Your task to perform on an android device: Add "usb-c to usb-b" to the cart on amazon.com, then select checkout. Image 0: 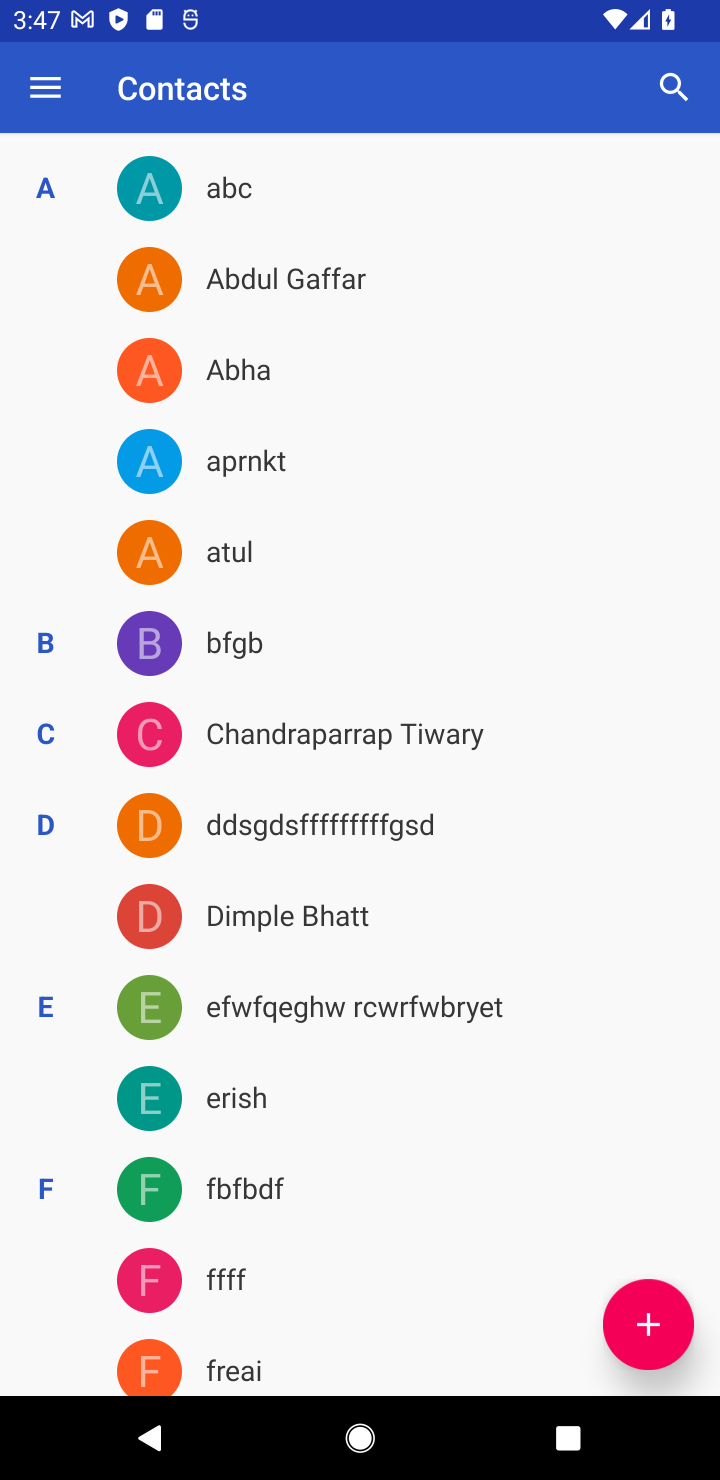
Step 0: press home button
Your task to perform on an android device: Add "usb-c to usb-b" to the cart on amazon.com, then select checkout. Image 1: 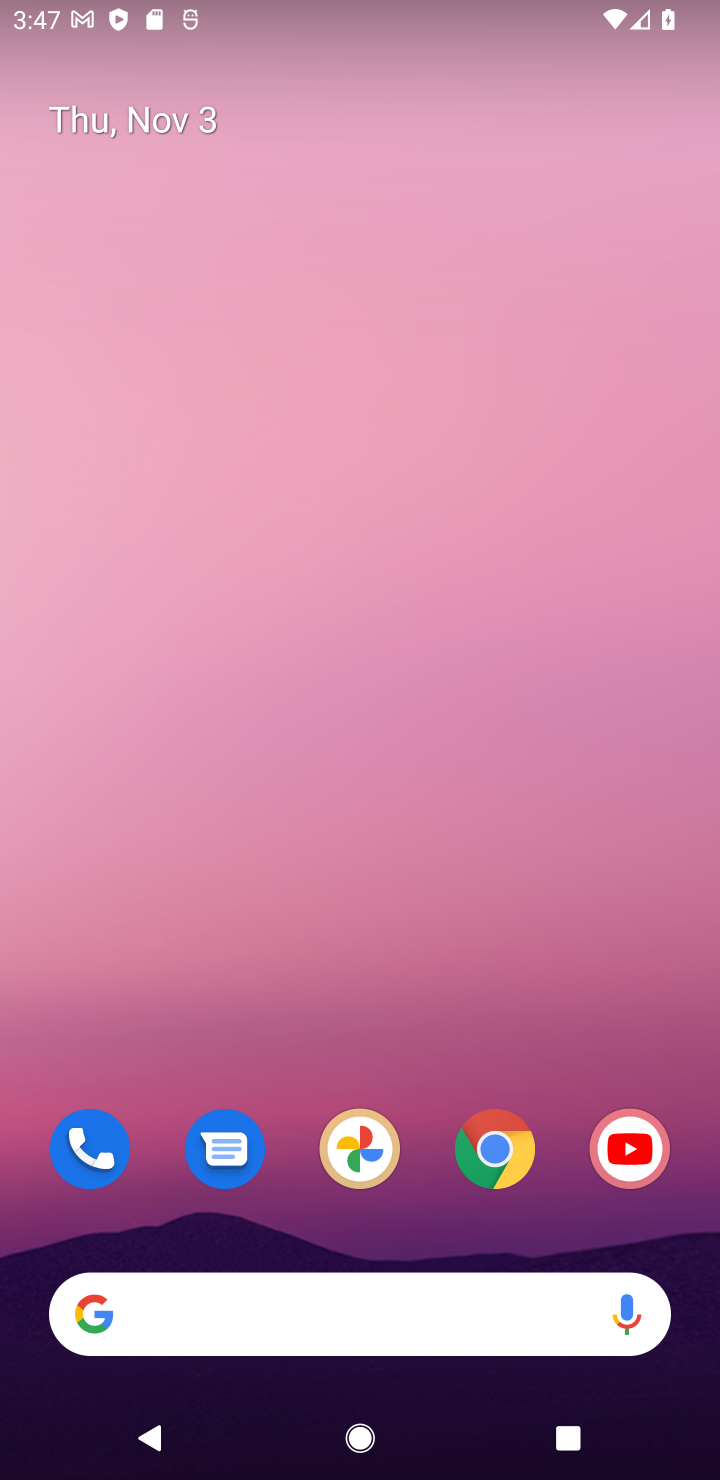
Step 1: drag from (421, 1083) to (333, 129)
Your task to perform on an android device: Add "usb-c to usb-b" to the cart on amazon.com, then select checkout. Image 2: 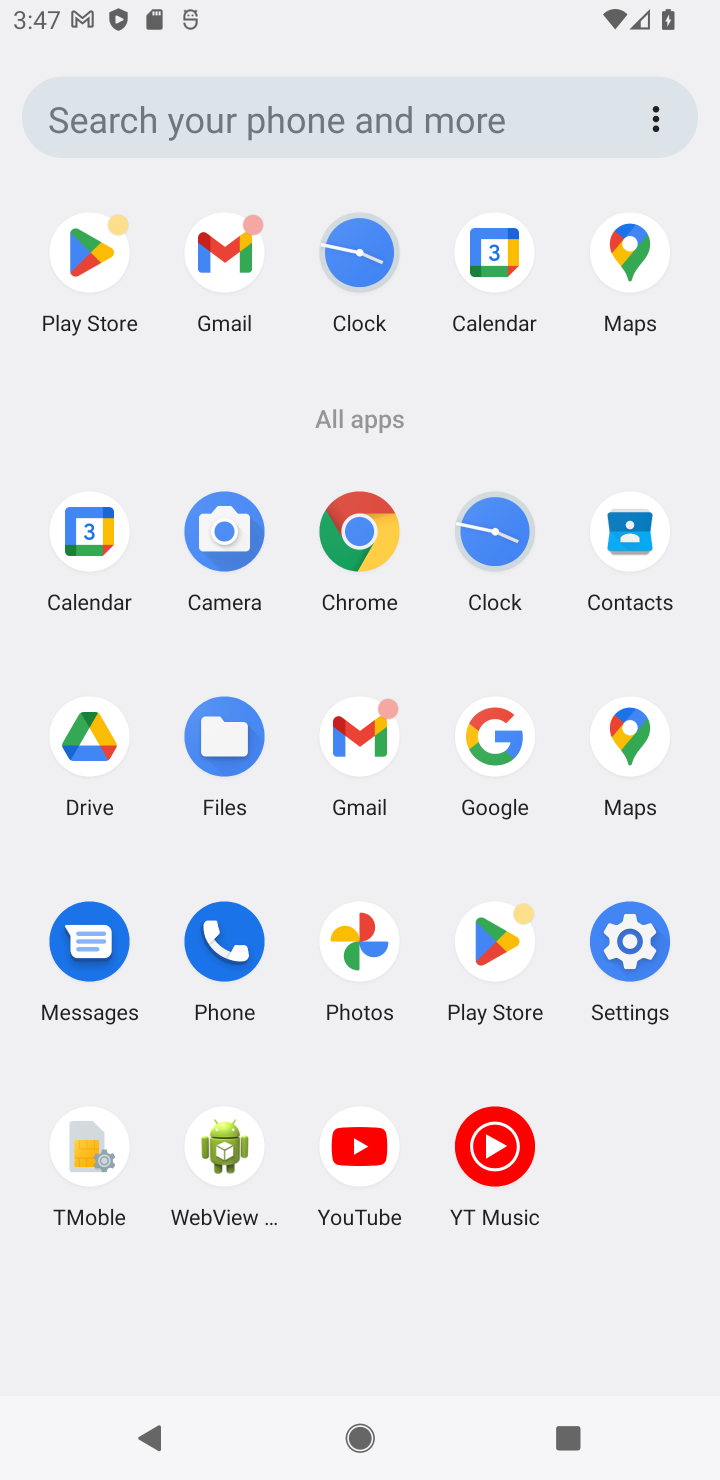
Step 2: click (369, 512)
Your task to perform on an android device: Add "usb-c to usb-b" to the cart on amazon.com, then select checkout. Image 3: 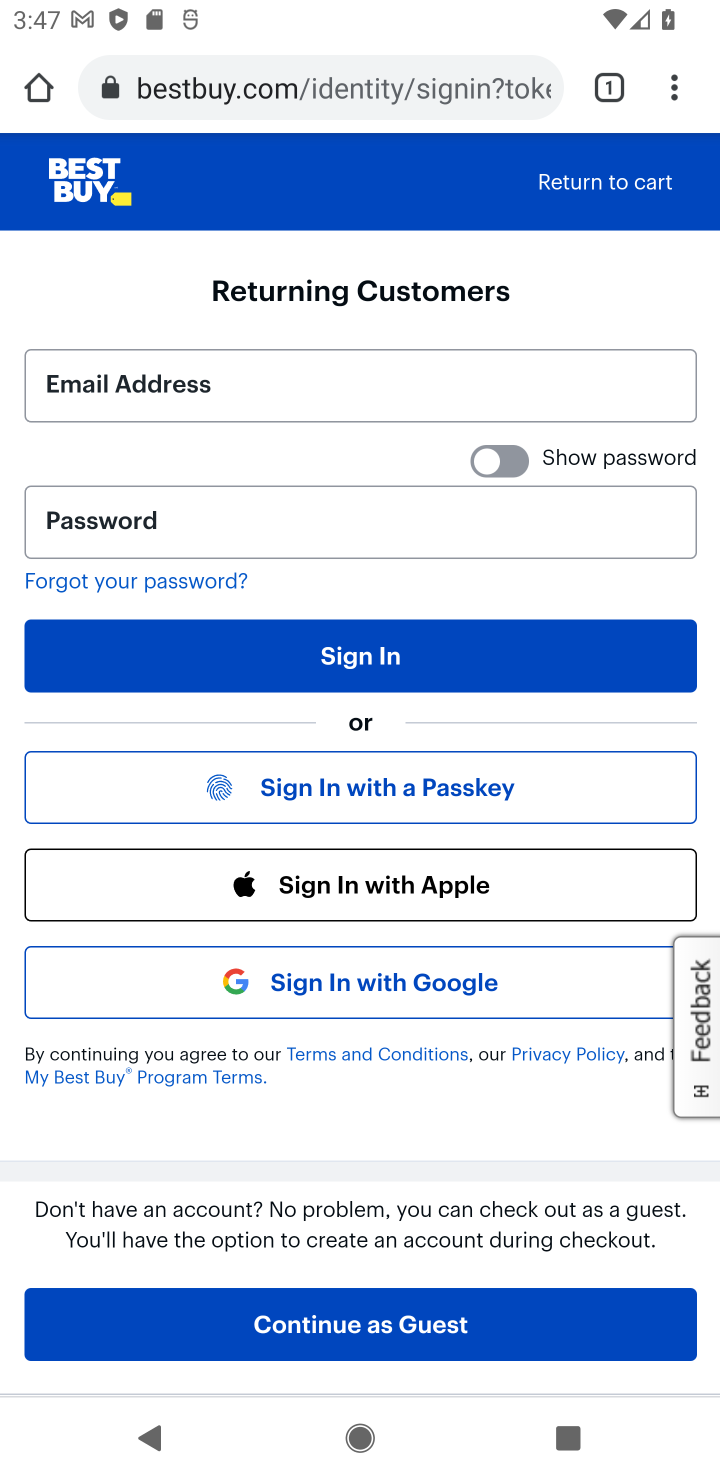
Step 3: click (277, 78)
Your task to perform on an android device: Add "usb-c to usb-b" to the cart on amazon.com, then select checkout. Image 4: 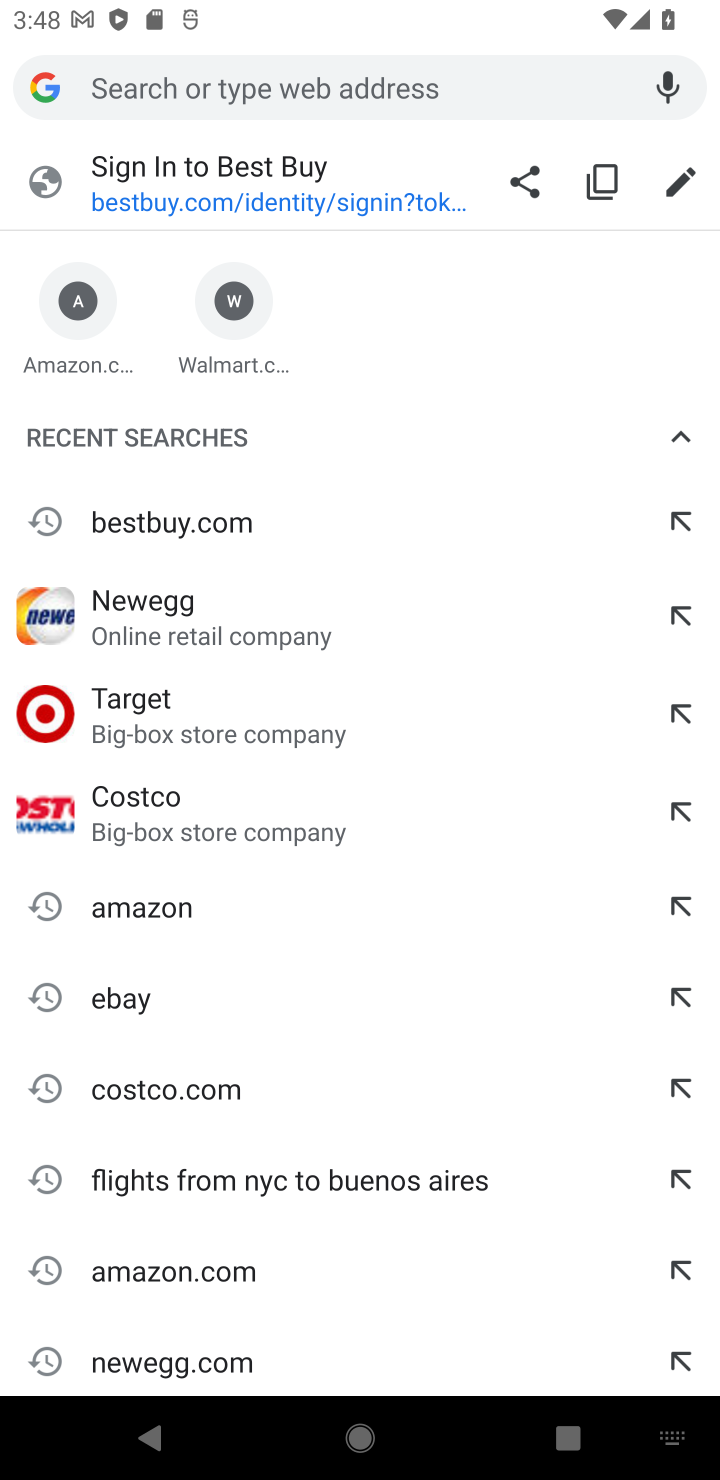
Step 4: type "amazon"
Your task to perform on an android device: Add "usb-c to usb-b" to the cart on amazon.com, then select checkout. Image 5: 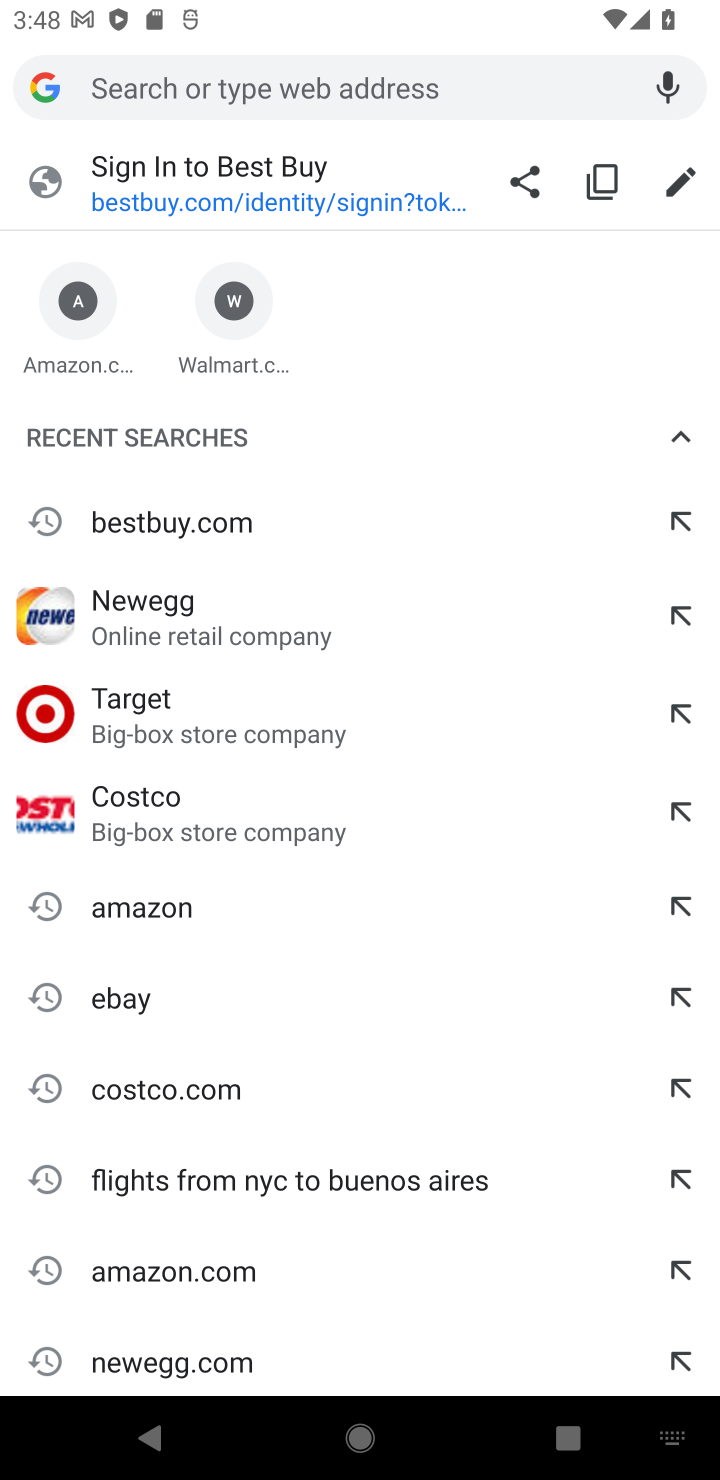
Step 5: click (229, 916)
Your task to perform on an android device: Add "usb-c to usb-b" to the cart on amazon.com, then select checkout. Image 6: 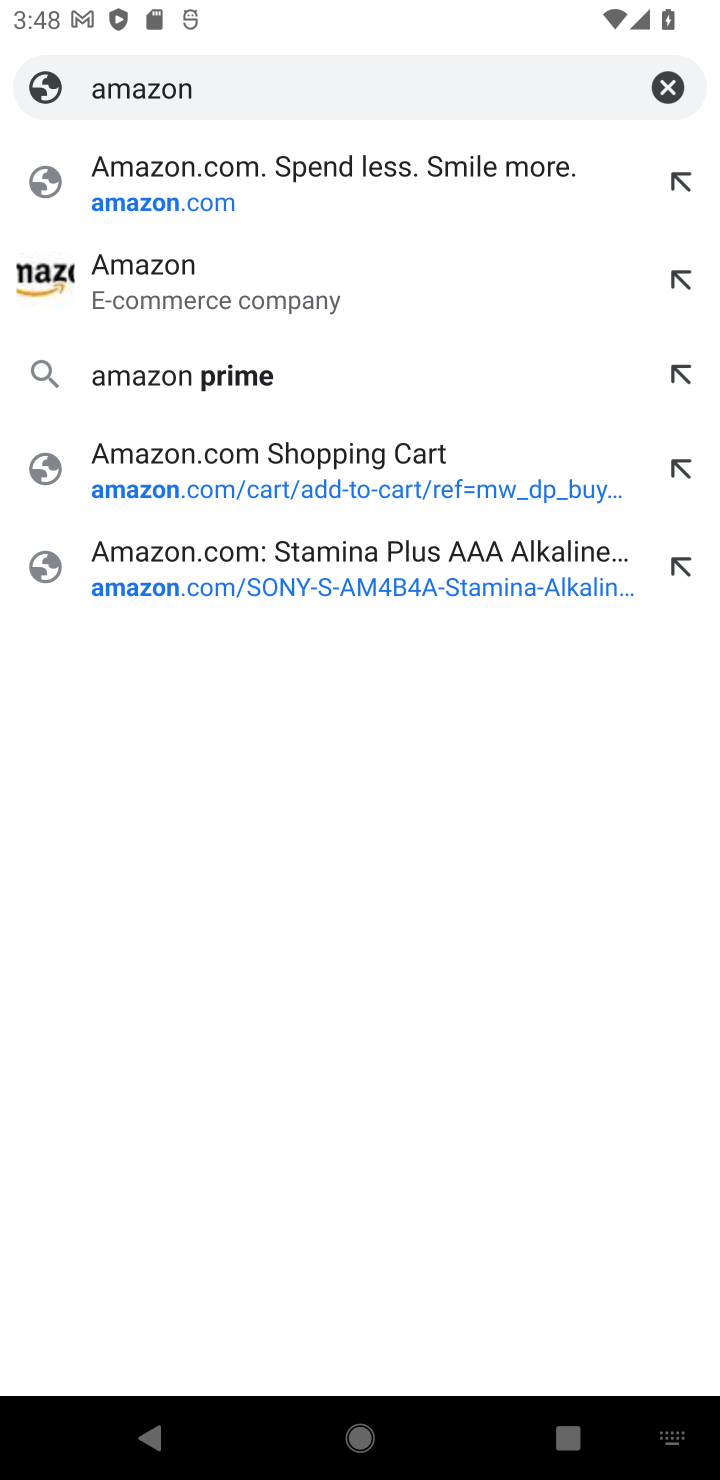
Step 6: click (128, 172)
Your task to perform on an android device: Add "usb-c to usb-b" to the cart on amazon.com, then select checkout. Image 7: 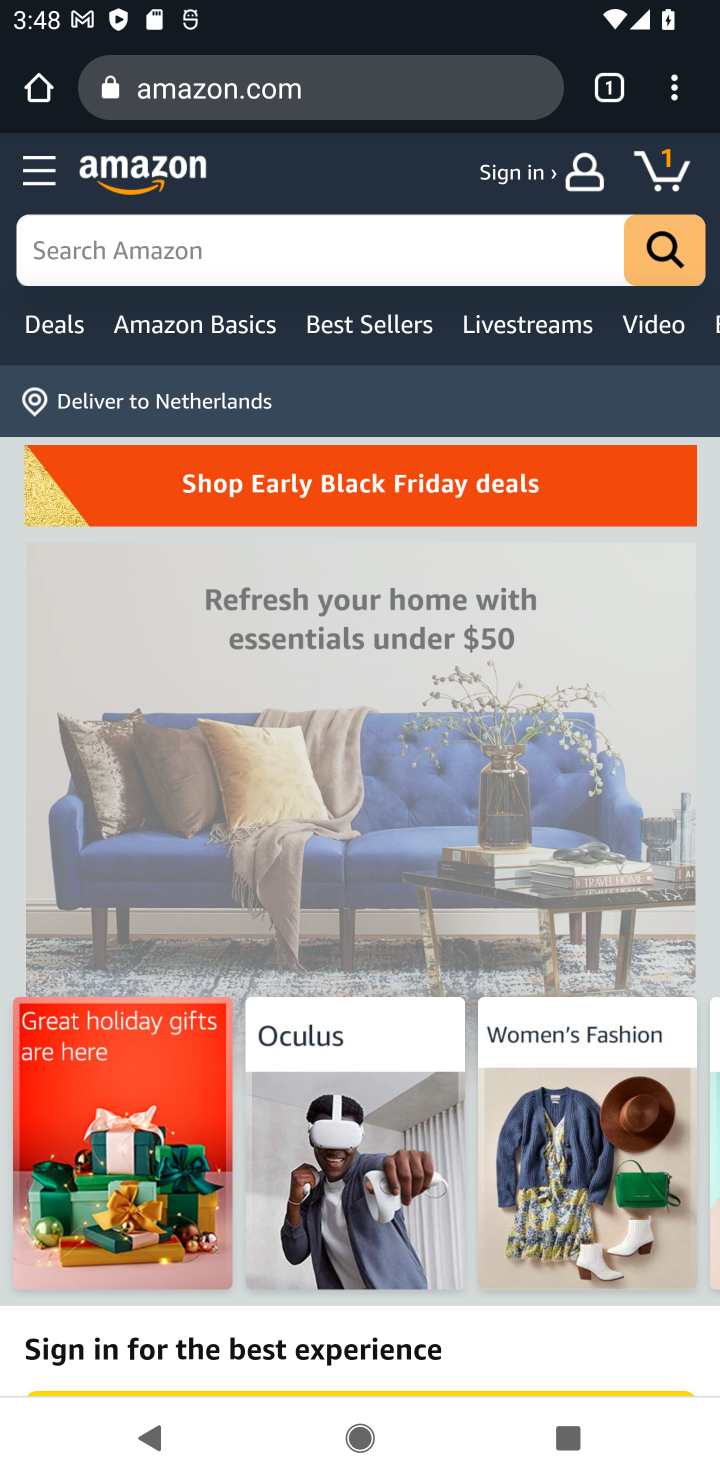
Step 7: click (144, 237)
Your task to perform on an android device: Add "usb-c to usb-b" to the cart on amazon.com, then select checkout. Image 8: 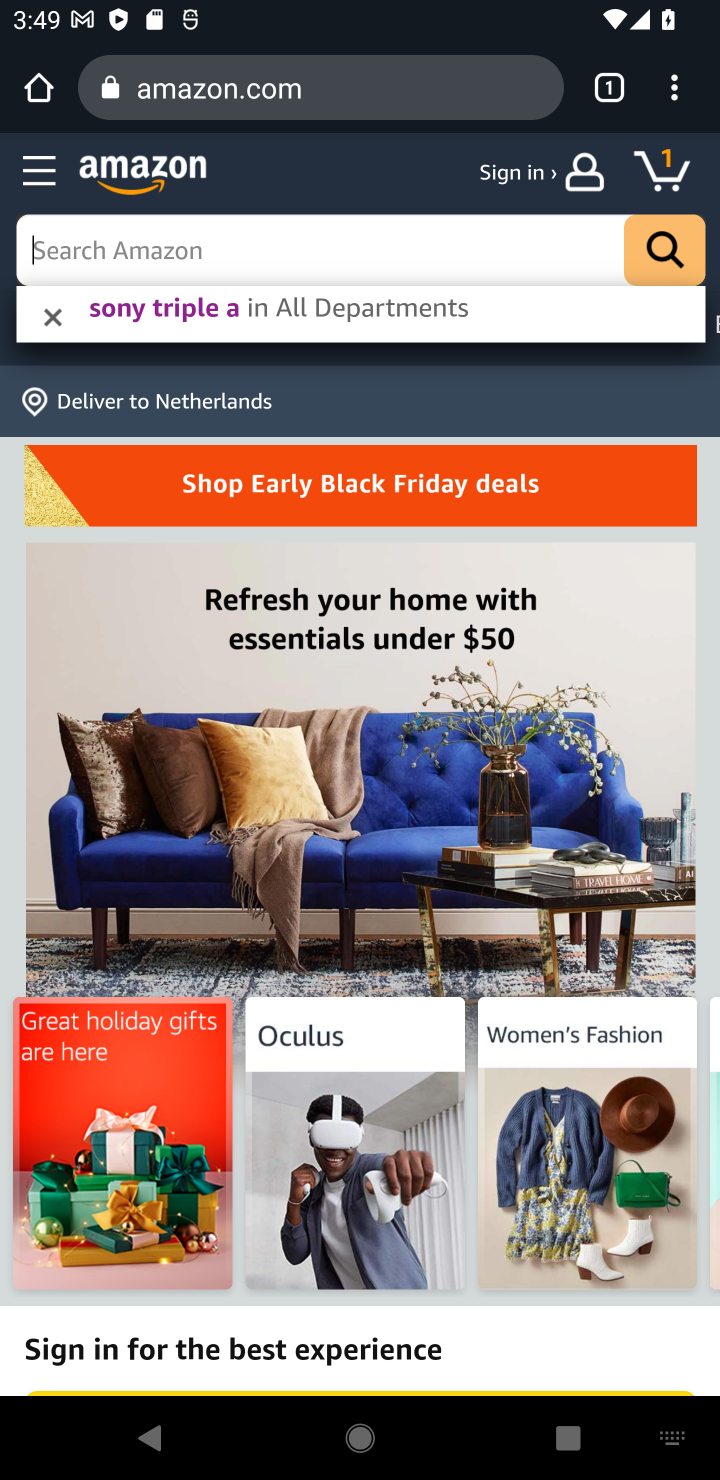
Step 8: type "usb-c to usb-b"
Your task to perform on an android device: Add "usb-c to usb-b" to the cart on amazon.com, then select checkout. Image 9: 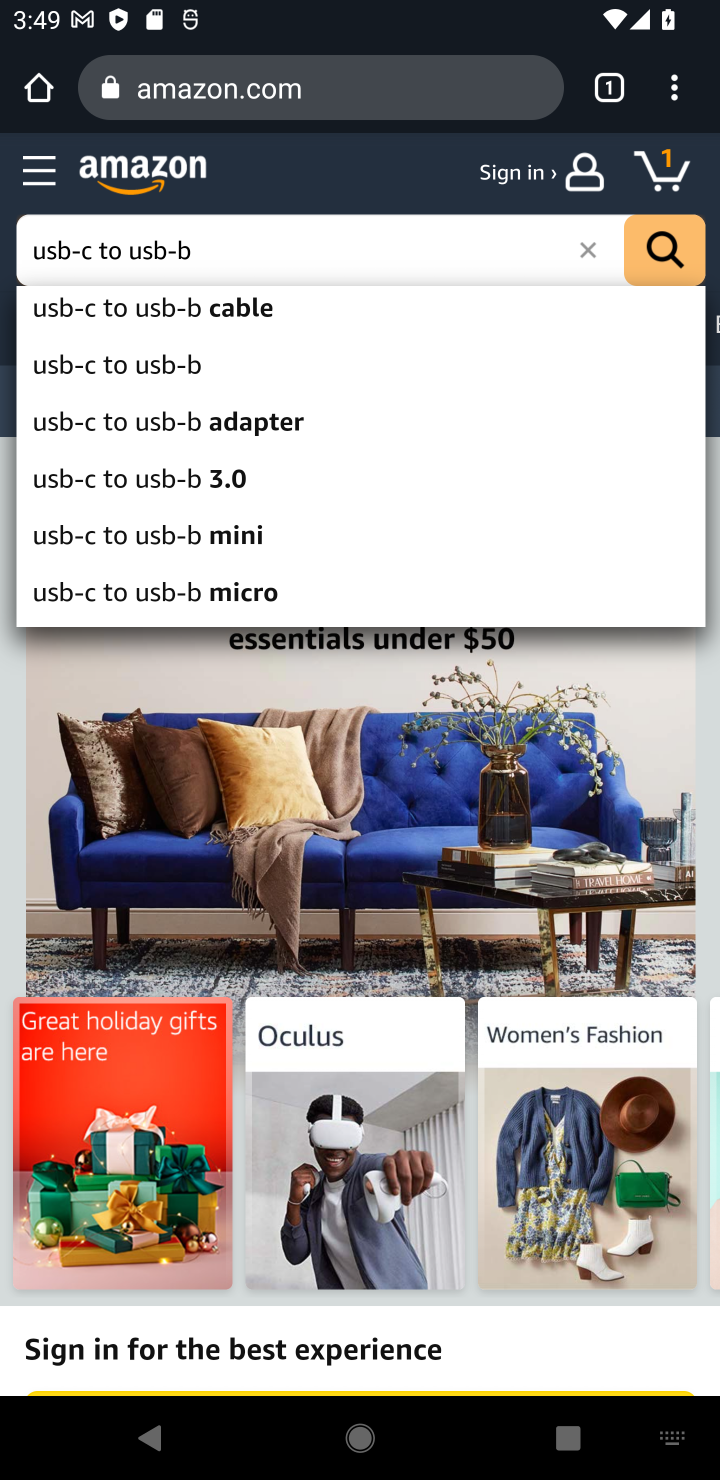
Step 9: click (181, 357)
Your task to perform on an android device: Add "usb-c to usb-b" to the cart on amazon.com, then select checkout. Image 10: 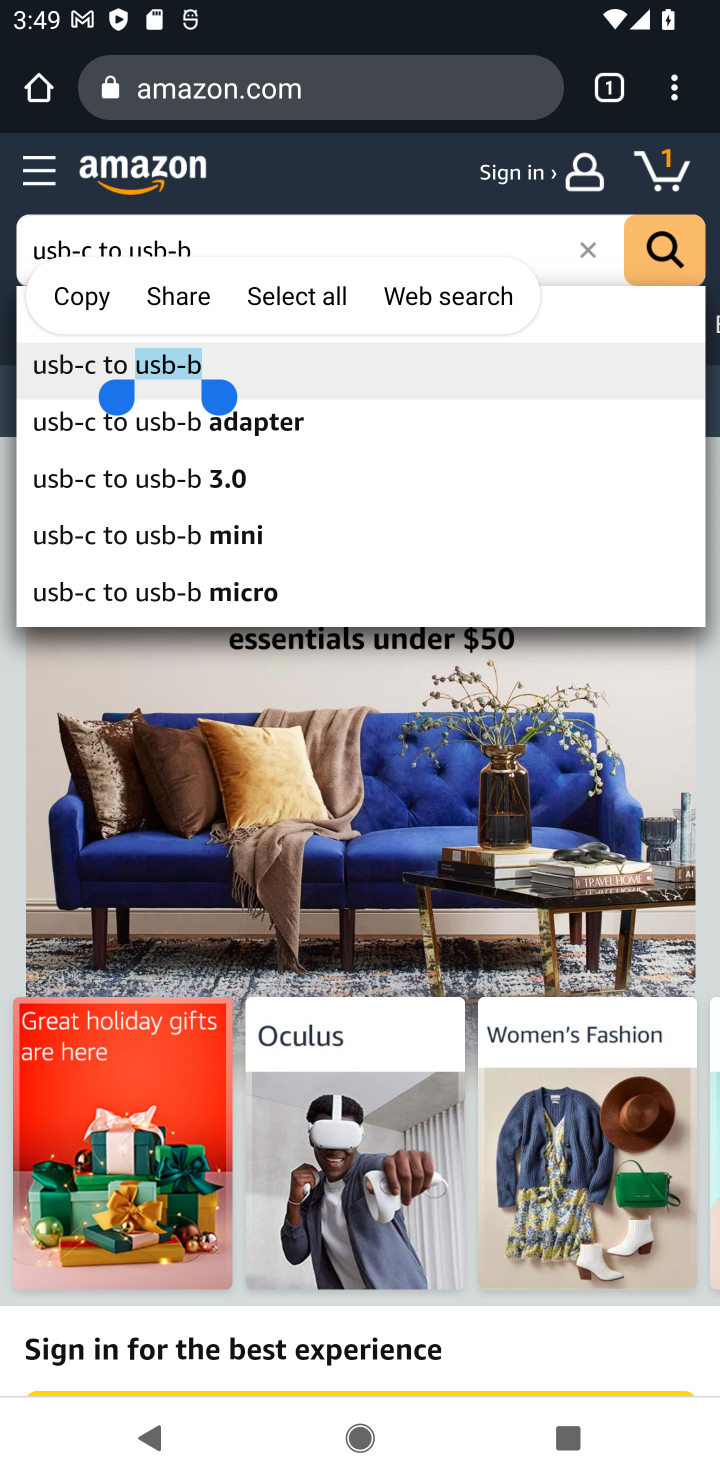
Step 10: click (263, 355)
Your task to perform on an android device: Add "usb-c to usb-b" to the cart on amazon.com, then select checkout. Image 11: 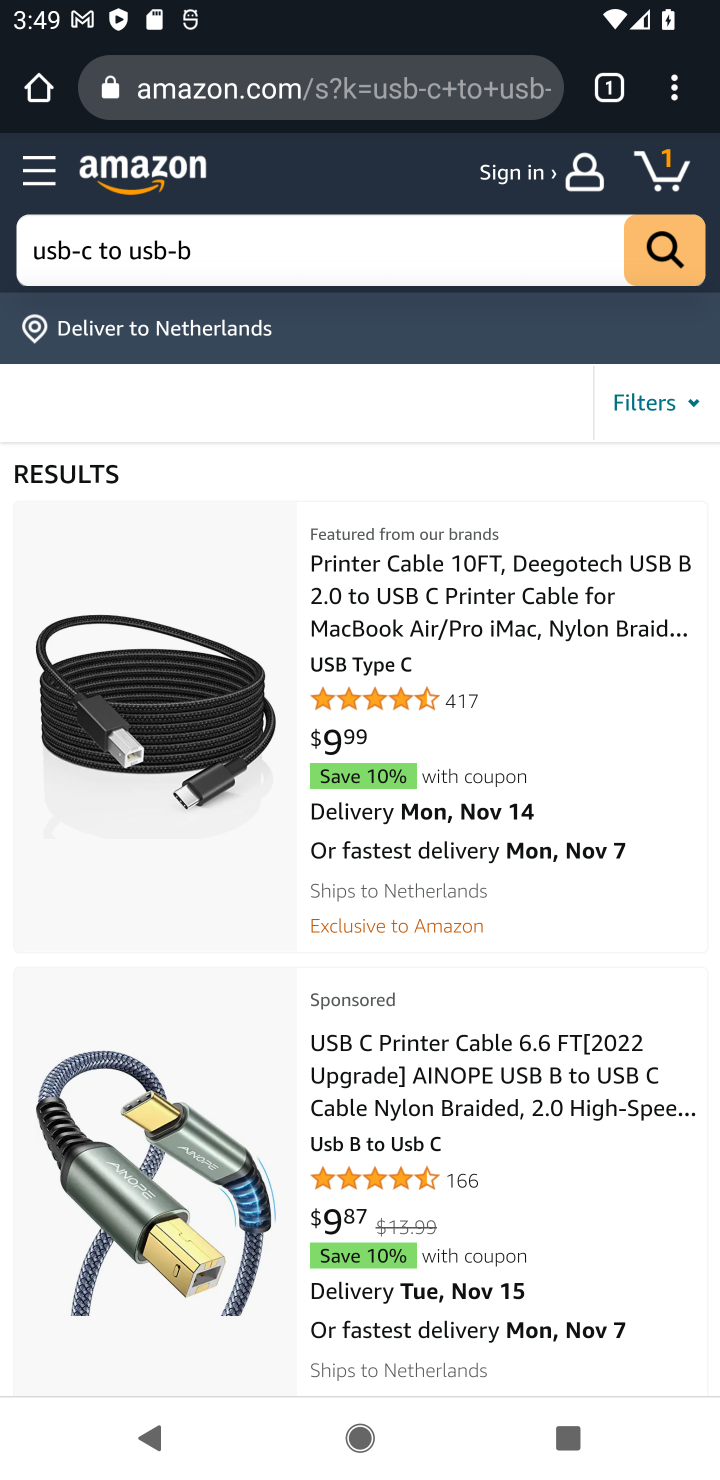
Step 11: drag from (288, 963) to (307, 311)
Your task to perform on an android device: Add "usb-c to usb-b" to the cart on amazon.com, then select checkout. Image 12: 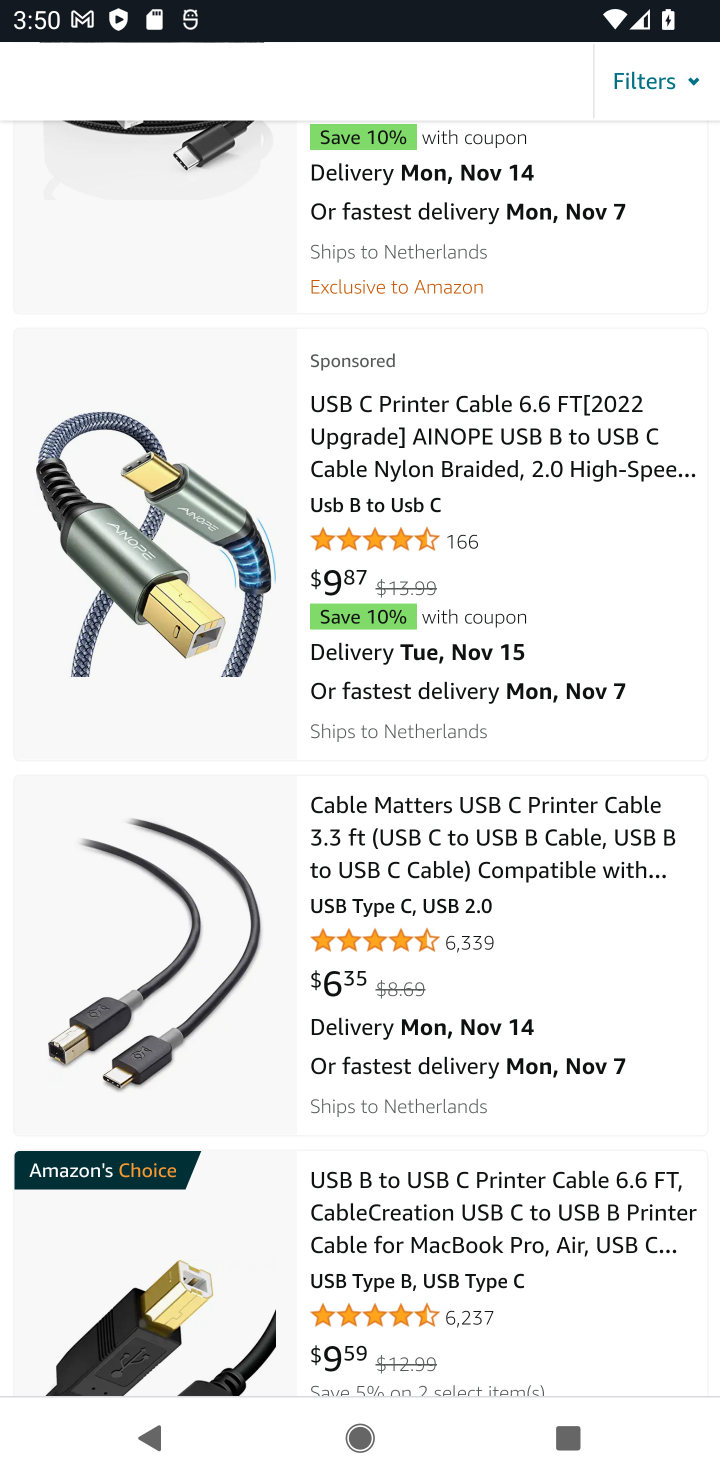
Step 12: click (467, 1244)
Your task to perform on an android device: Add "usb-c to usb-b" to the cart on amazon.com, then select checkout. Image 13: 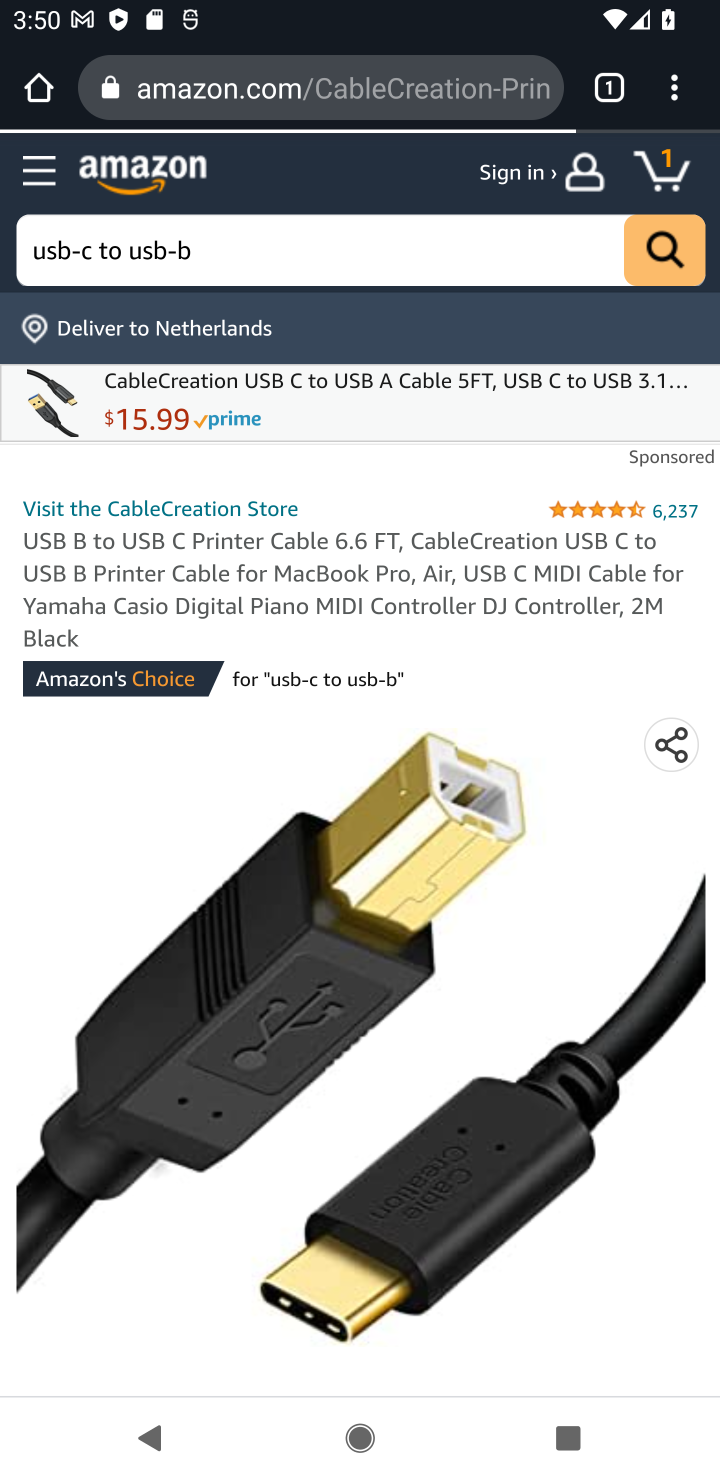
Step 13: drag from (464, 1320) to (376, 361)
Your task to perform on an android device: Add "usb-c to usb-b" to the cart on amazon.com, then select checkout. Image 14: 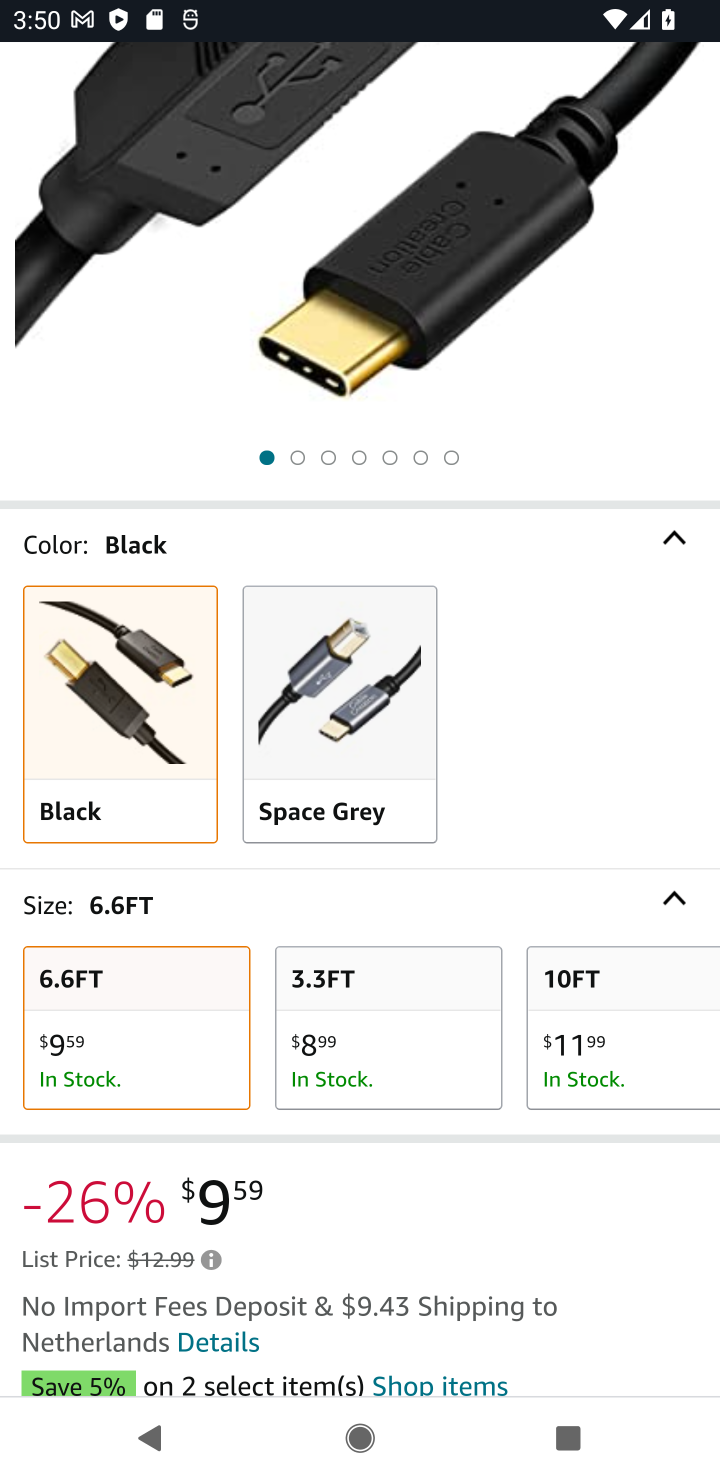
Step 14: drag from (393, 1240) to (418, 402)
Your task to perform on an android device: Add "usb-c to usb-b" to the cart on amazon.com, then select checkout. Image 15: 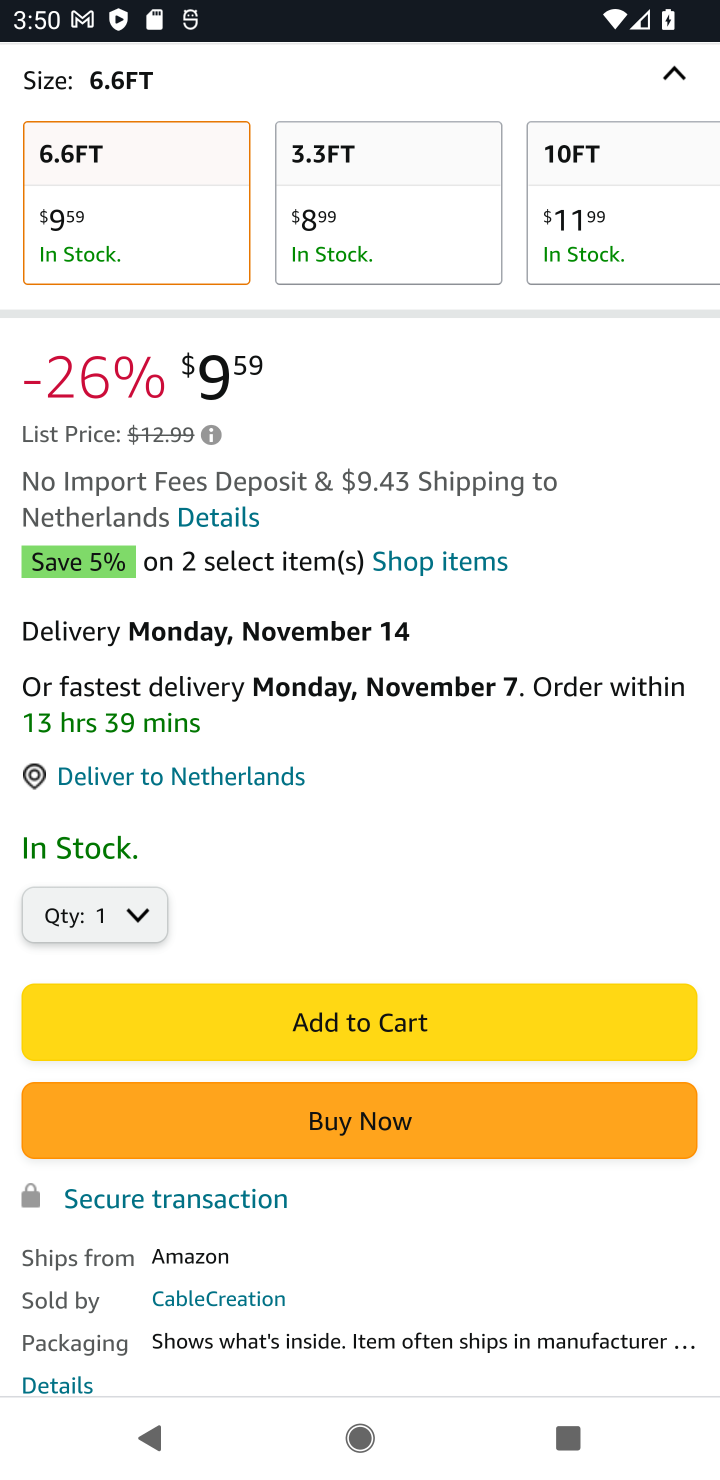
Step 15: click (369, 1014)
Your task to perform on an android device: Add "usb-c to usb-b" to the cart on amazon.com, then select checkout. Image 16: 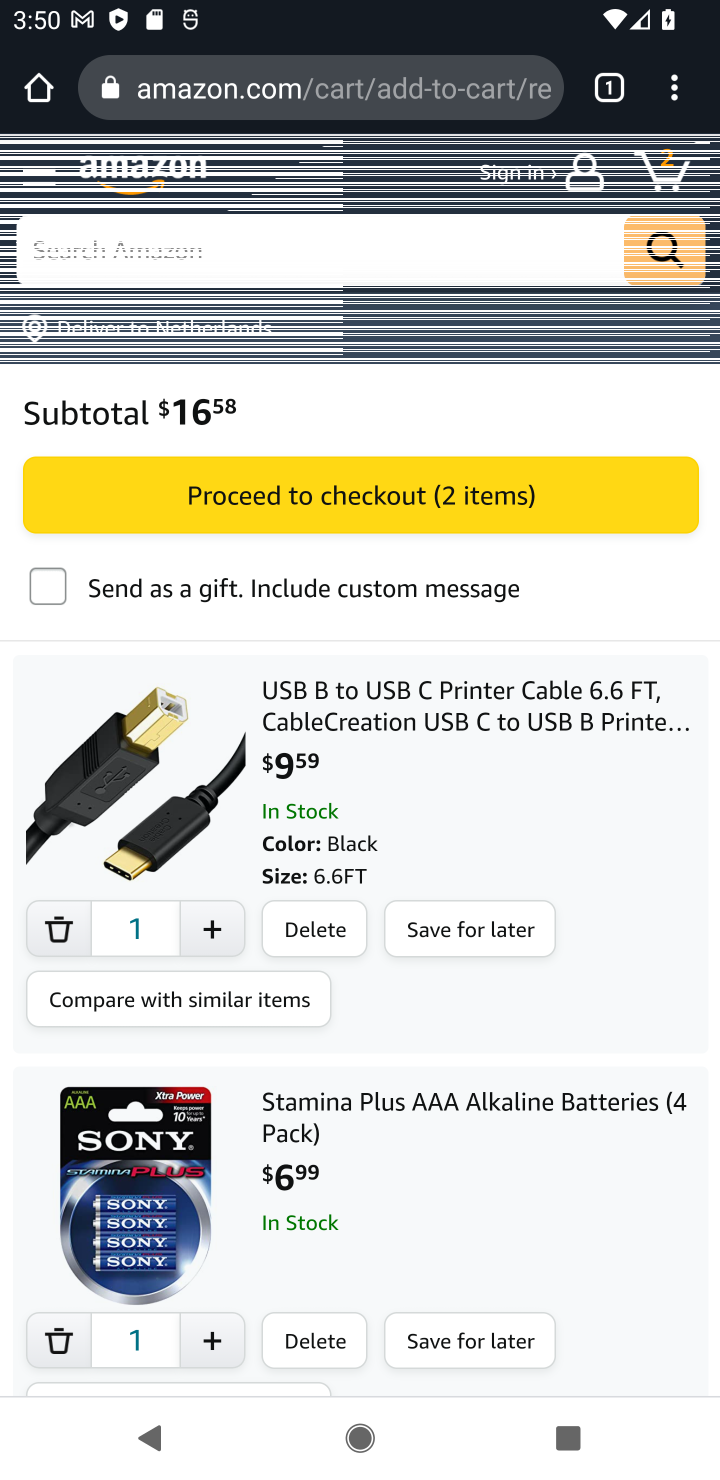
Step 16: click (273, 494)
Your task to perform on an android device: Add "usb-c to usb-b" to the cart on amazon.com, then select checkout. Image 17: 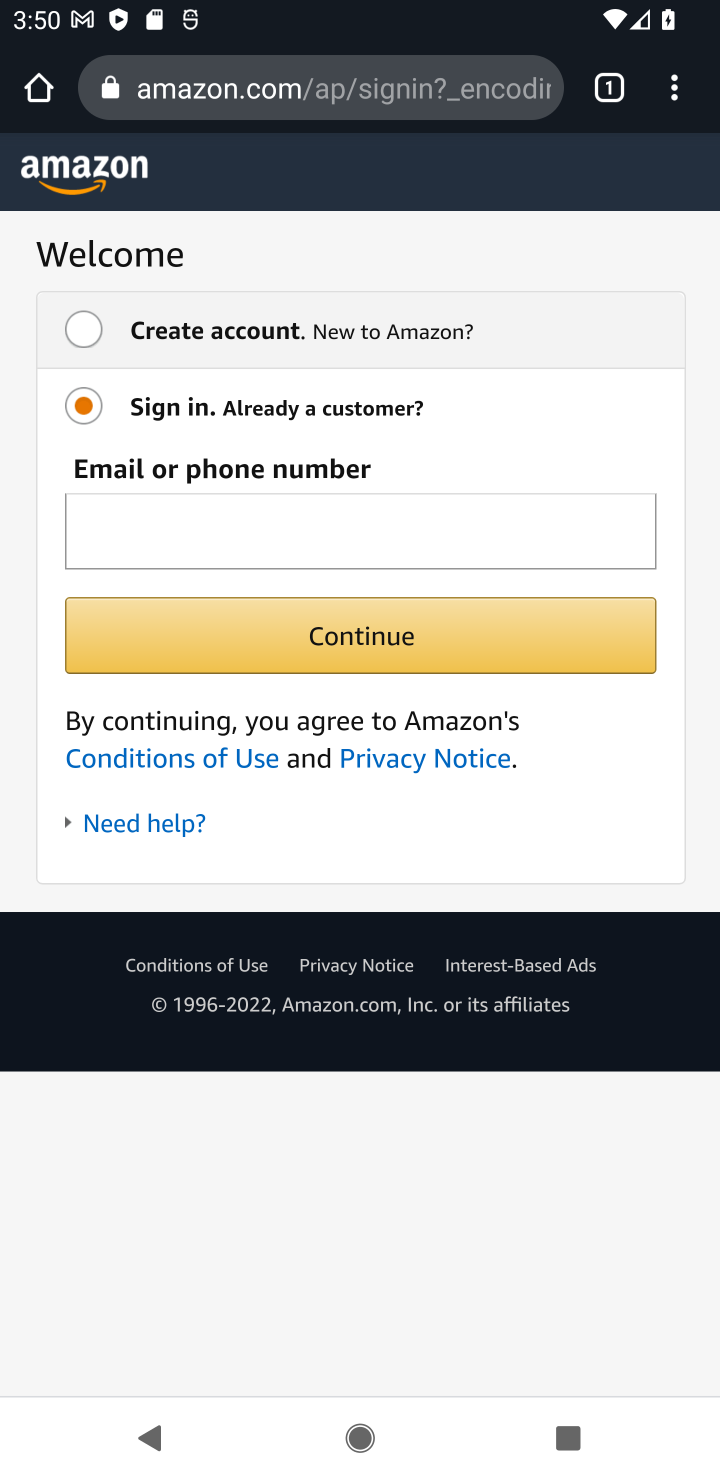
Step 17: task complete